Your task to perform on an android device: Show me popular games on the Play Store Image 0: 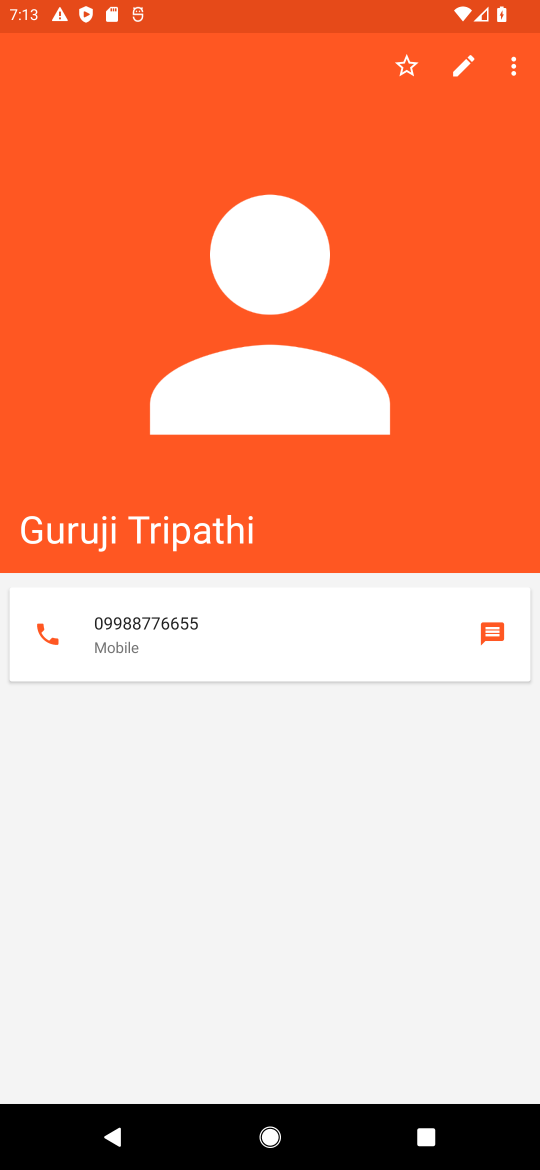
Step 0: press home button
Your task to perform on an android device: Show me popular games on the Play Store Image 1: 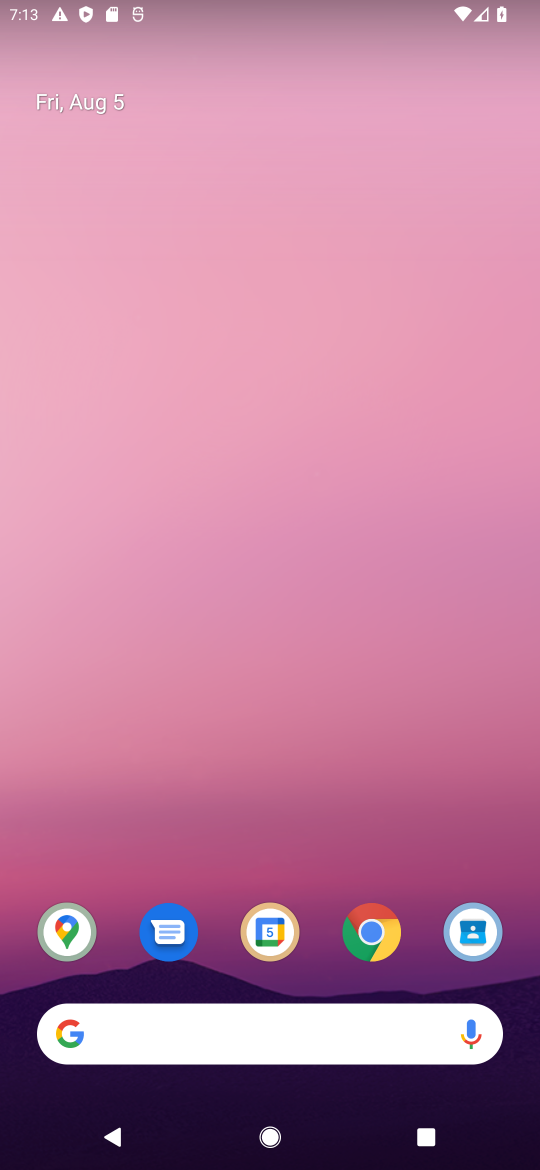
Step 1: drag from (288, 988) to (251, 120)
Your task to perform on an android device: Show me popular games on the Play Store Image 2: 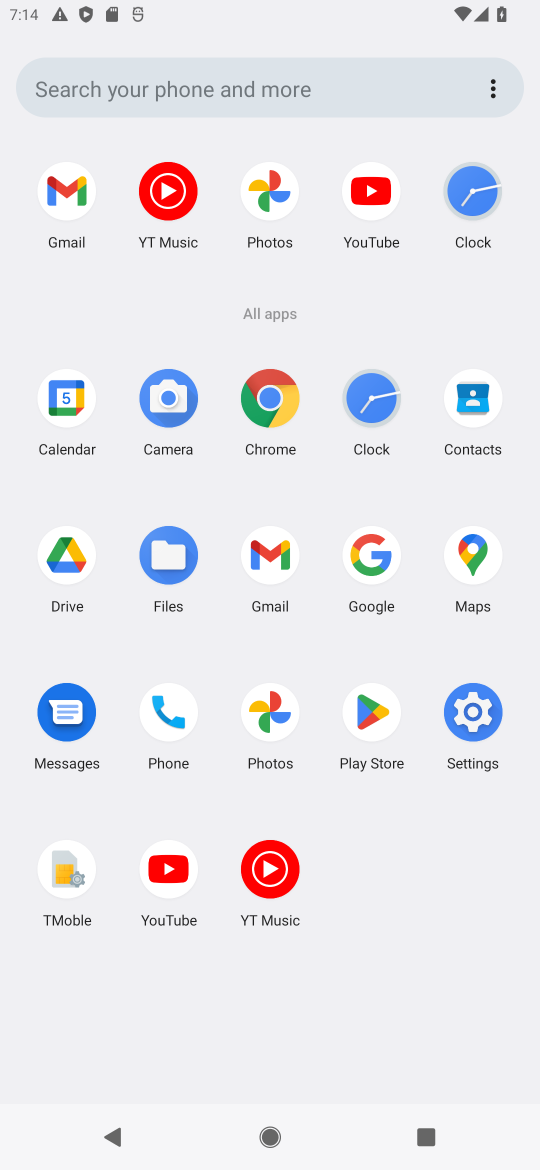
Step 2: click (375, 717)
Your task to perform on an android device: Show me popular games on the Play Store Image 3: 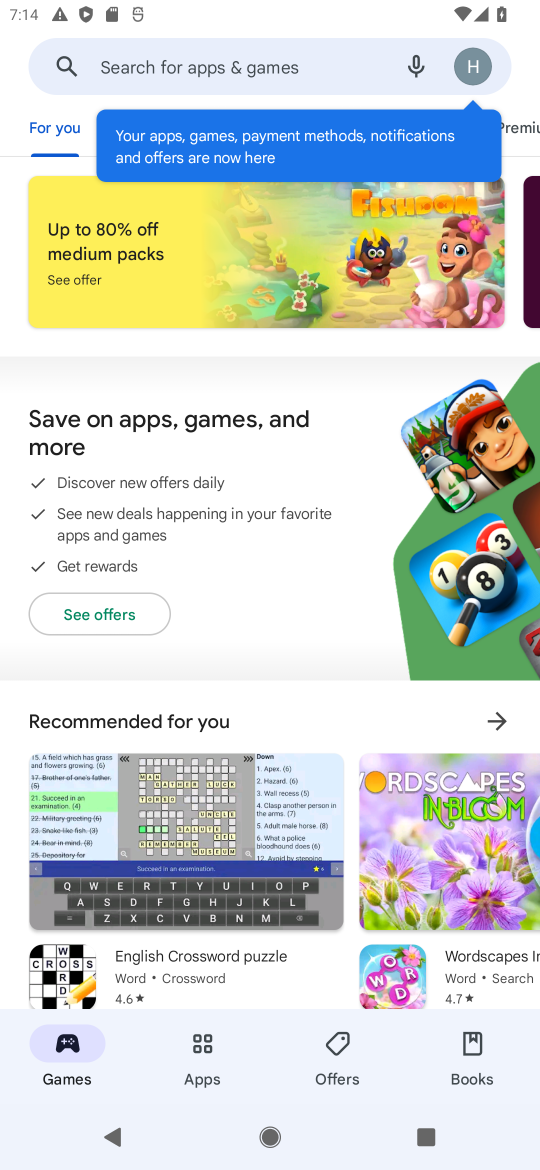
Step 3: click (305, 76)
Your task to perform on an android device: Show me popular games on the Play Store Image 4: 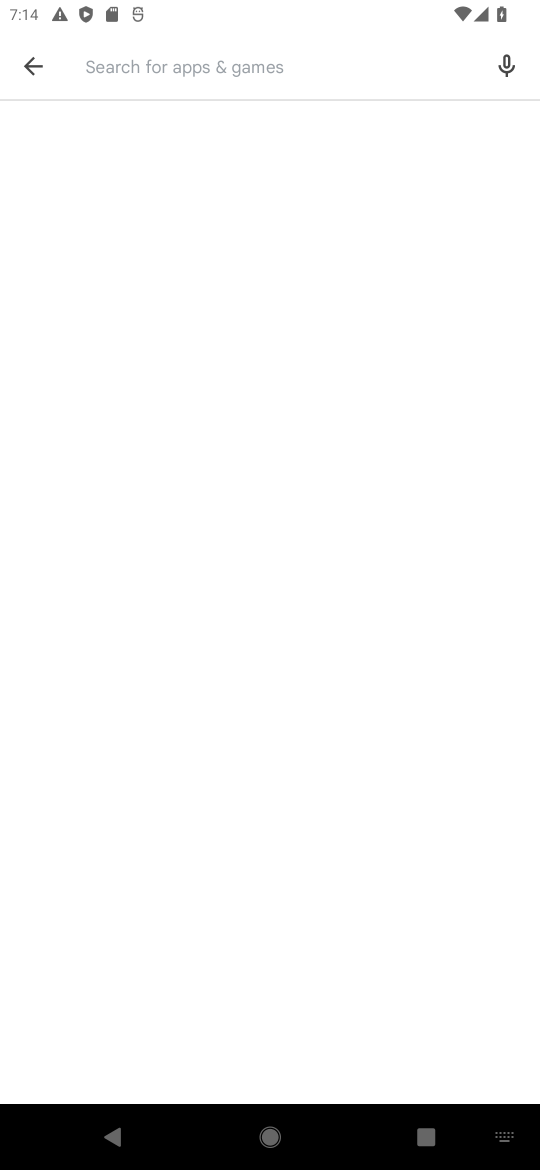
Step 4: type "popular games"
Your task to perform on an android device: Show me popular games on the Play Store Image 5: 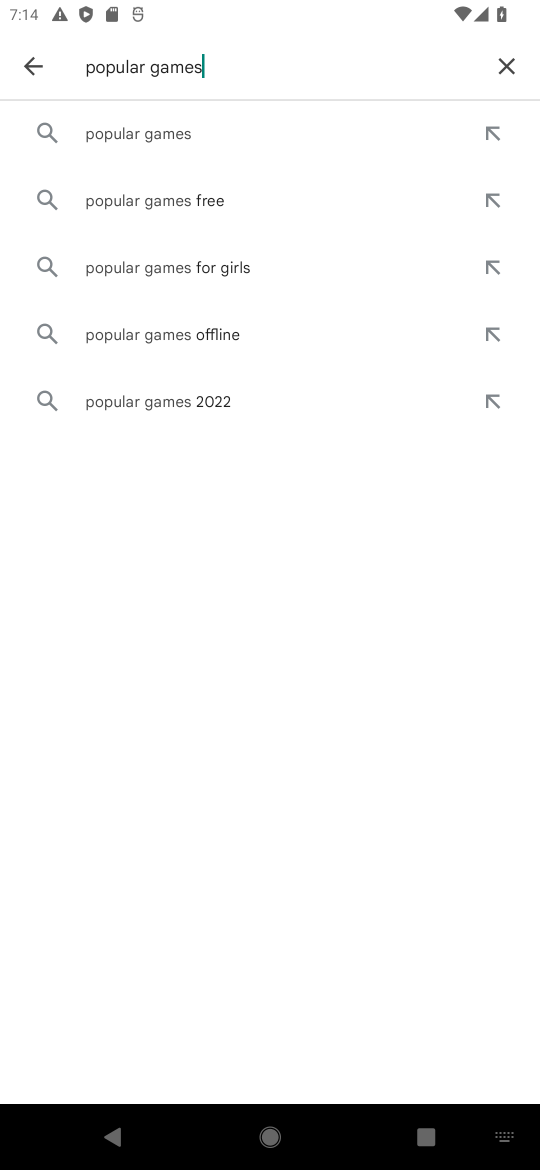
Step 5: click (174, 126)
Your task to perform on an android device: Show me popular games on the Play Store Image 6: 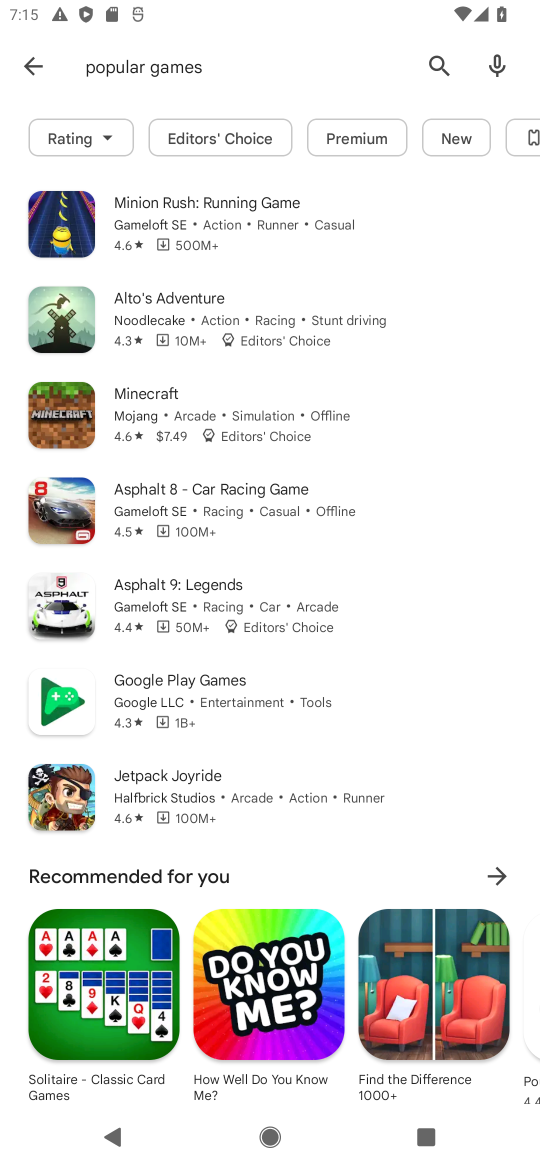
Step 6: task complete